Your task to perform on an android device: delete the emails in spam in the gmail app Image 0: 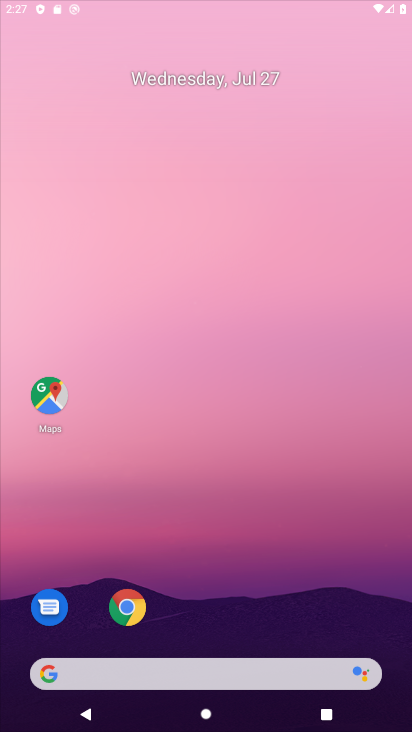
Step 0: press home button
Your task to perform on an android device: delete the emails in spam in the gmail app Image 1: 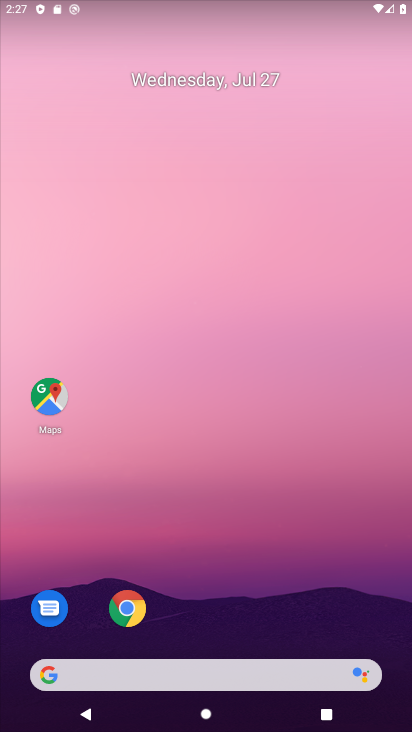
Step 1: drag from (231, 642) to (232, 117)
Your task to perform on an android device: delete the emails in spam in the gmail app Image 2: 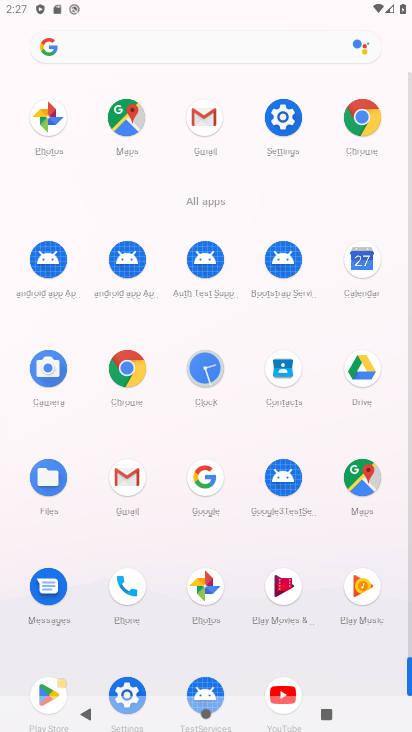
Step 2: click (126, 478)
Your task to perform on an android device: delete the emails in spam in the gmail app Image 3: 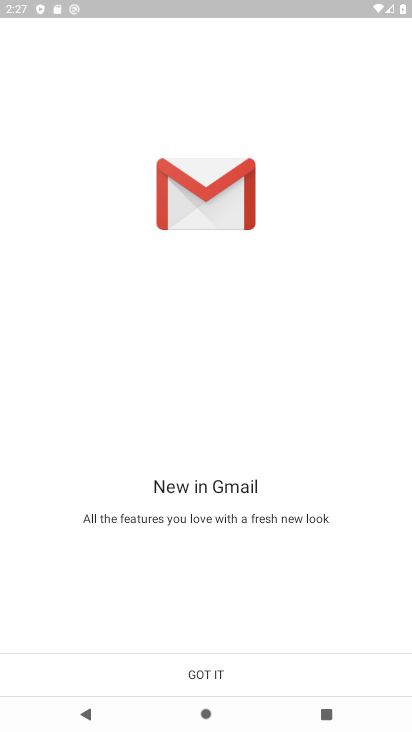
Step 3: click (188, 661)
Your task to perform on an android device: delete the emails in spam in the gmail app Image 4: 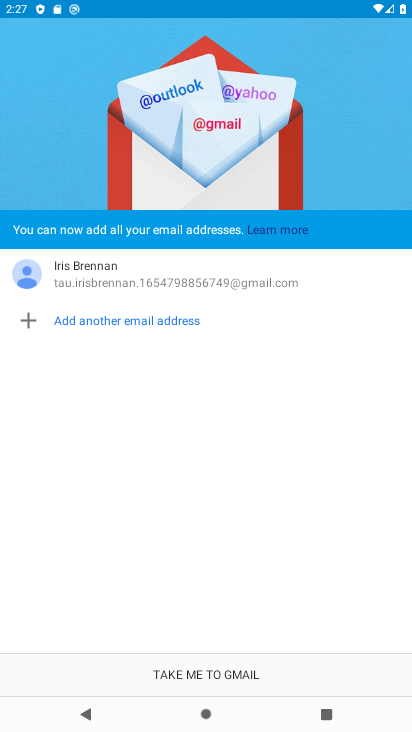
Step 4: click (195, 674)
Your task to perform on an android device: delete the emails in spam in the gmail app Image 5: 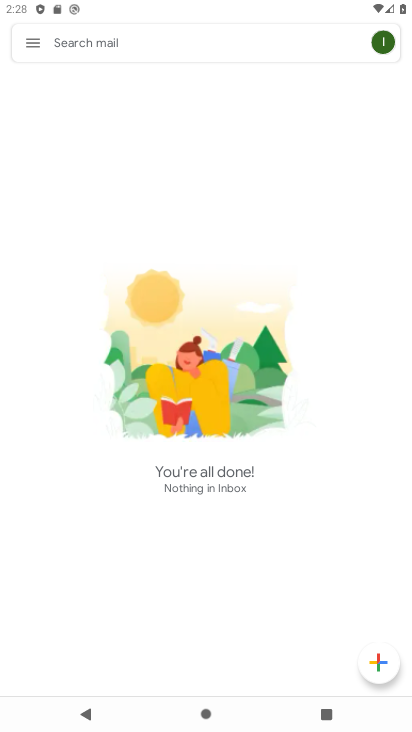
Step 5: click (29, 55)
Your task to perform on an android device: delete the emails in spam in the gmail app Image 6: 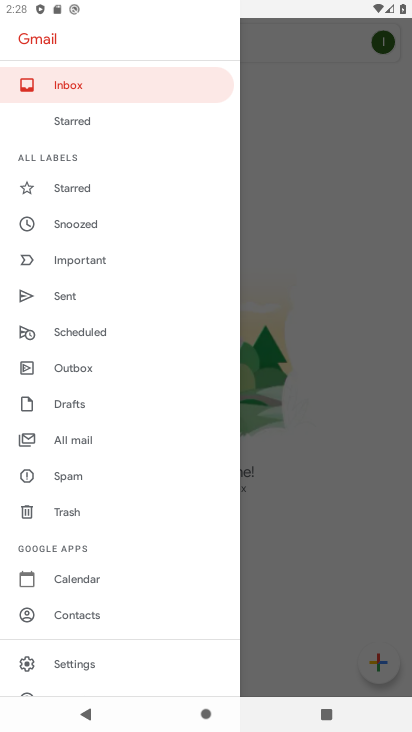
Step 6: click (47, 480)
Your task to perform on an android device: delete the emails in spam in the gmail app Image 7: 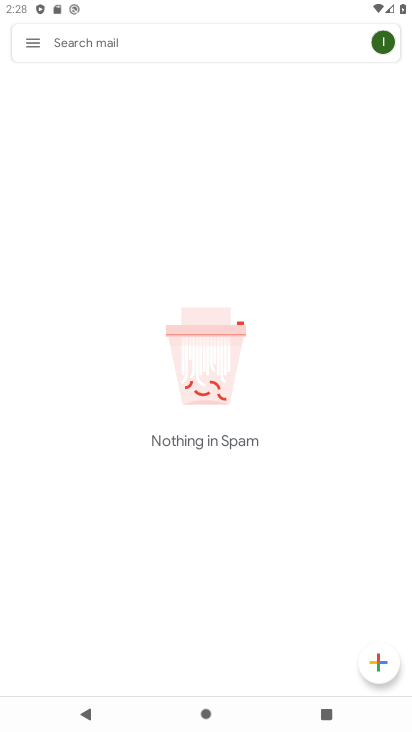
Step 7: task complete